Your task to perform on an android device: Go to location settings Image 0: 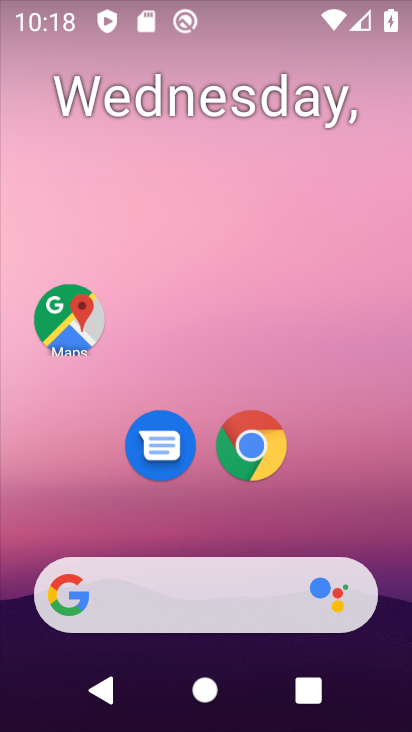
Step 0: drag from (216, 445) to (265, 8)
Your task to perform on an android device: Go to location settings Image 1: 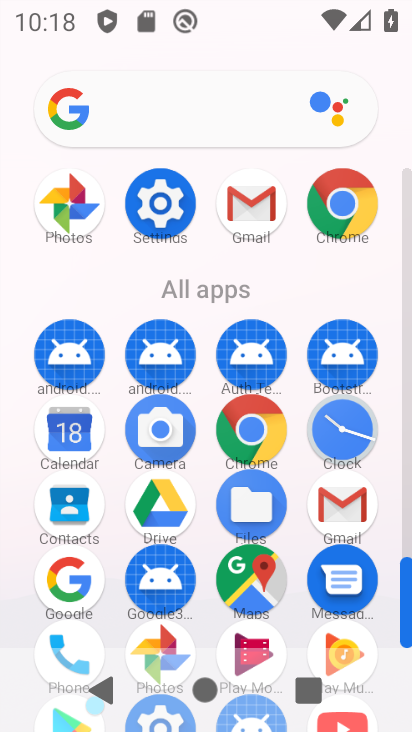
Step 1: click (162, 199)
Your task to perform on an android device: Go to location settings Image 2: 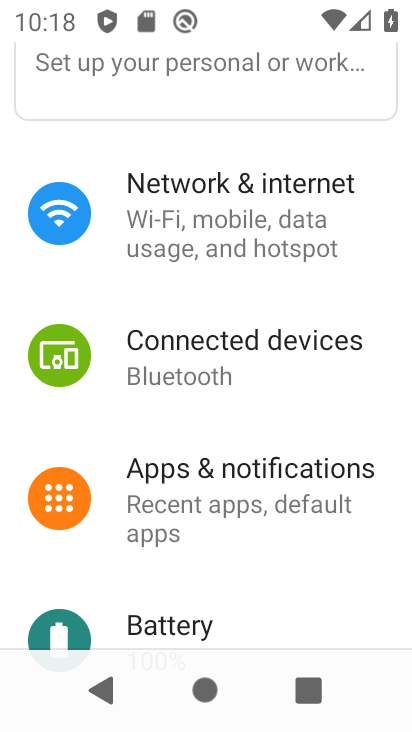
Step 2: drag from (207, 270) to (320, 95)
Your task to perform on an android device: Go to location settings Image 3: 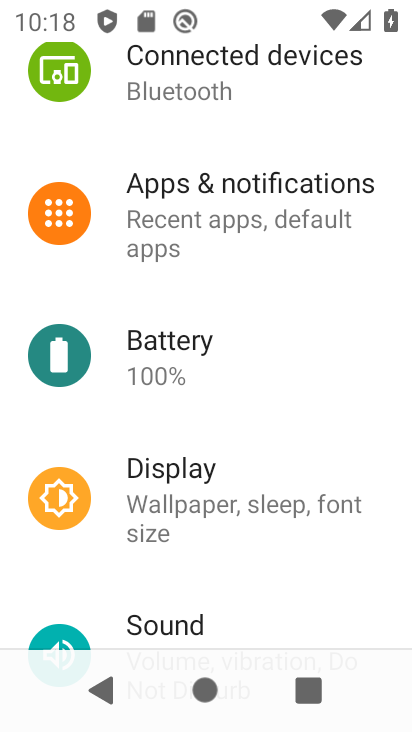
Step 3: drag from (176, 618) to (308, 128)
Your task to perform on an android device: Go to location settings Image 4: 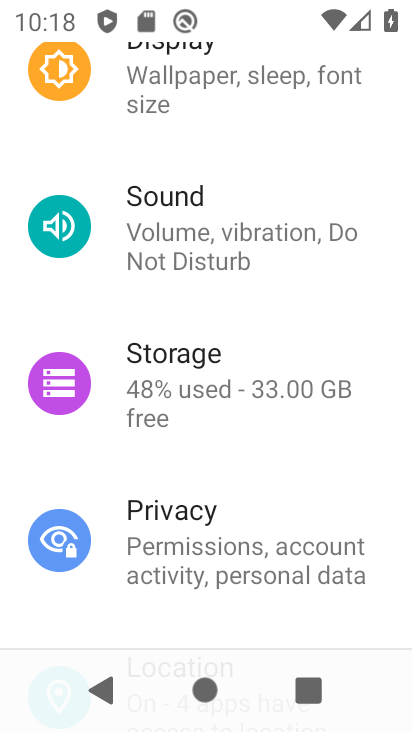
Step 4: drag from (205, 525) to (292, 85)
Your task to perform on an android device: Go to location settings Image 5: 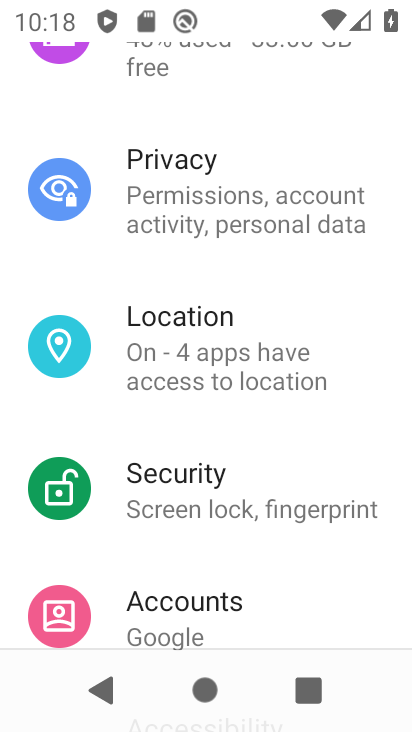
Step 5: click (230, 350)
Your task to perform on an android device: Go to location settings Image 6: 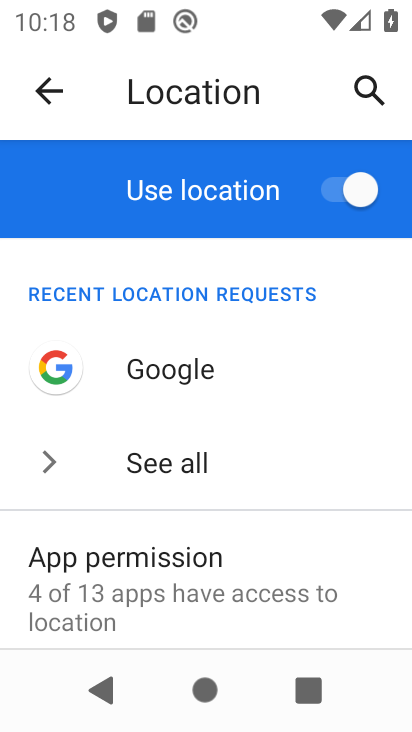
Step 6: task complete